Your task to perform on an android device: Open calendar and show me the first week of next month Image 0: 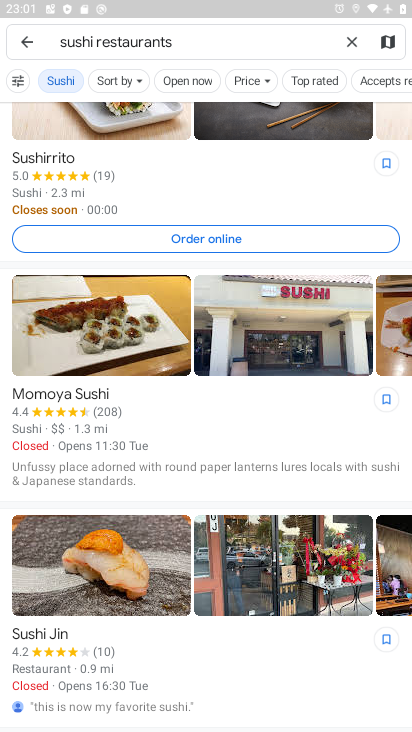
Step 0: press home button
Your task to perform on an android device: Open calendar and show me the first week of next month Image 1: 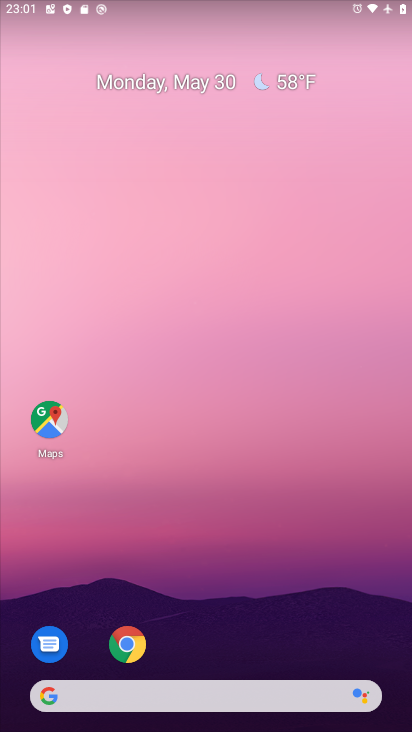
Step 1: click (127, 643)
Your task to perform on an android device: Open calendar and show me the first week of next month Image 2: 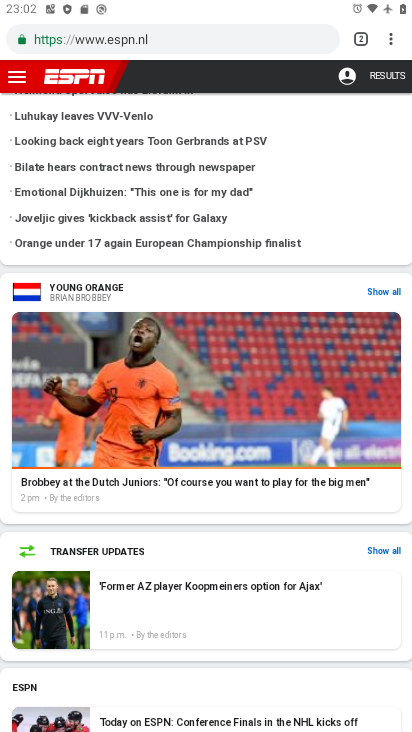
Step 2: press home button
Your task to perform on an android device: Open calendar and show me the first week of next month Image 3: 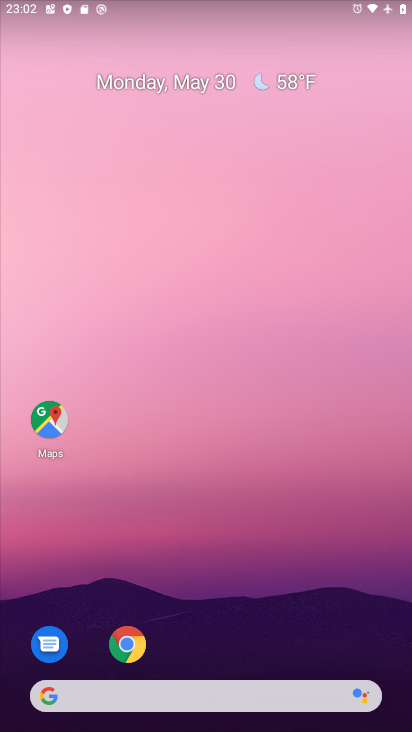
Step 3: drag from (332, 620) to (305, 150)
Your task to perform on an android device: Open calendar and show me the first week of next month Image 4: 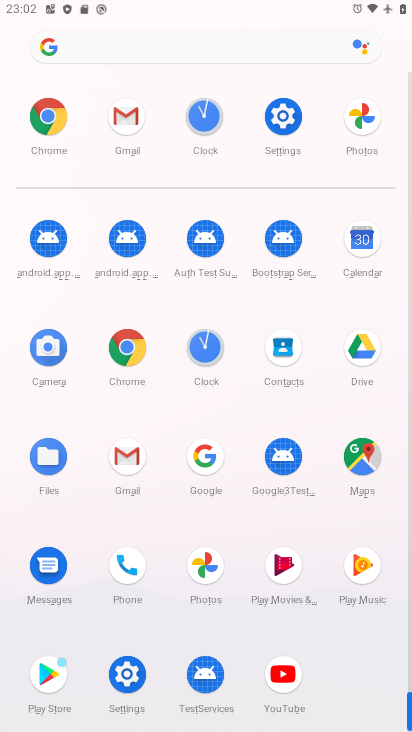
Step 4: click (357, 241)
Your task to perform on an android device: Open calendar and show me the first week of next month Image 5: 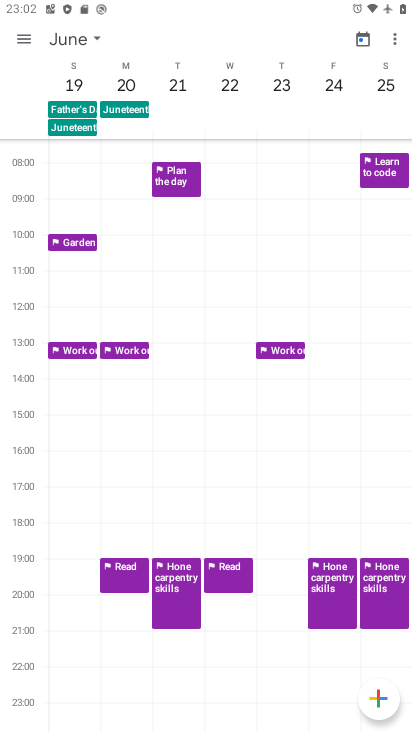
Step 5: click (394, 43)
Your task to perform on an android device: Open calendar and show me the first week of next month Image 6: 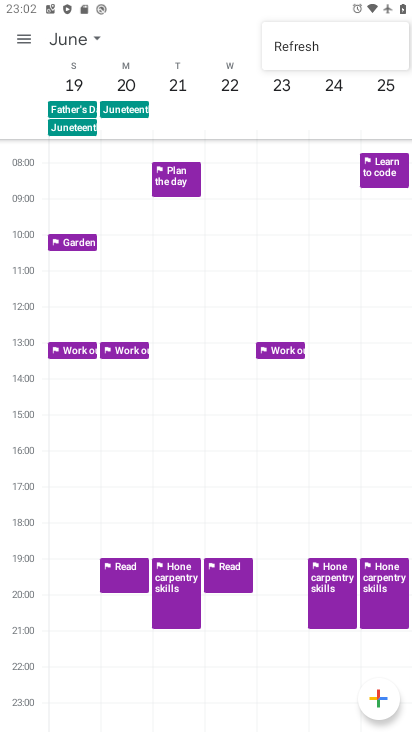
Step 6: click (33, 34)
Your task to perform on an android device: Open calendar and show me the first week of next month Image 7: 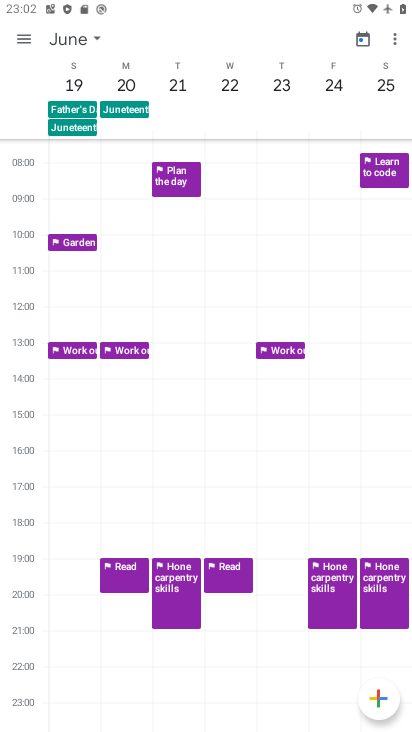
Step 7: click (81, 36)
Your task to perform on an android device: Open calendar and show me the first week of next month Image 8: 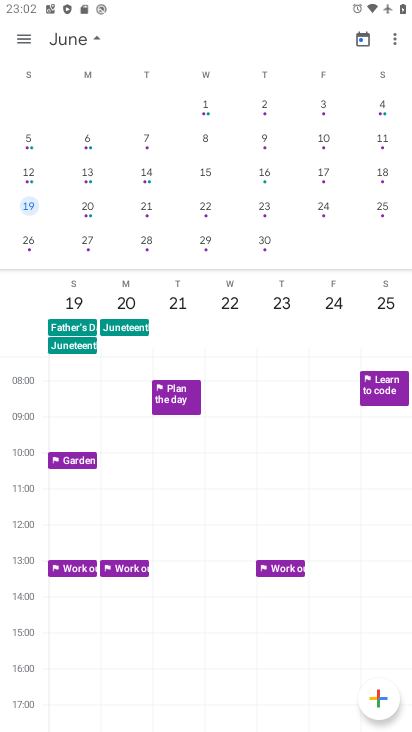
Step 8: click (25, 138)
Your task to perform on an android device: Open calendar and show me the first week of next month Image 9: 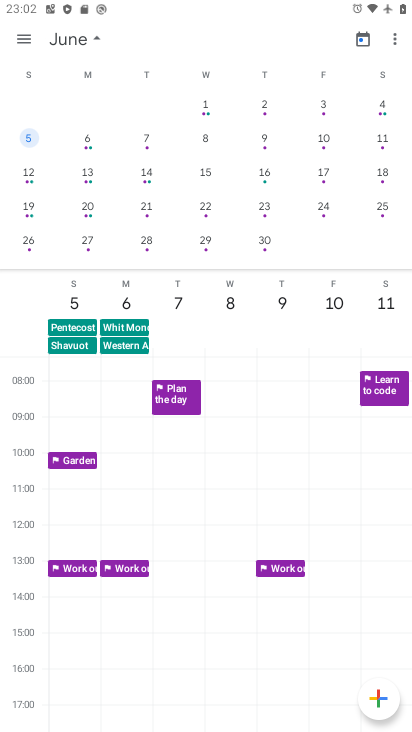
Step 9: task complete